Your task to perform on an android device: change the clock style Image 0: 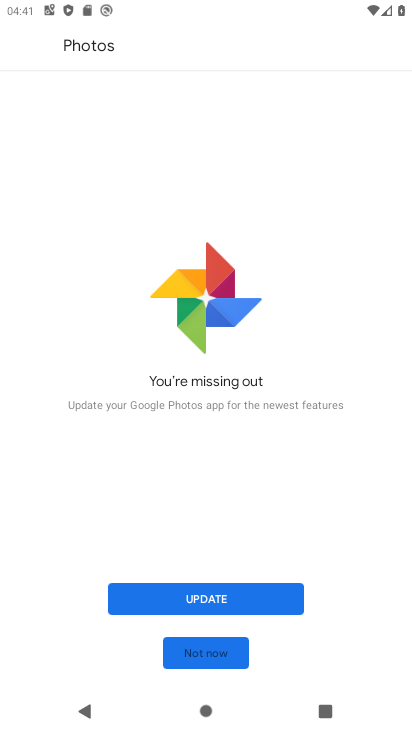
Step 0: press home button
Your task to perform on an android device: change the clock style Image 1: 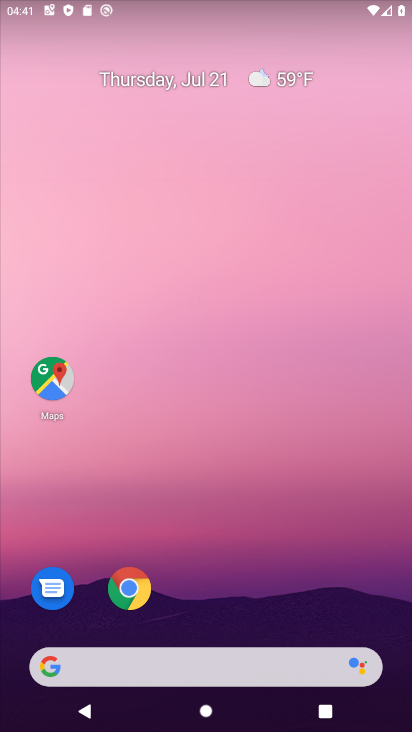
Step 1: drag from (188, 588) to (201, 15)
Your task to perform on an android device: change the clock style Image 2: 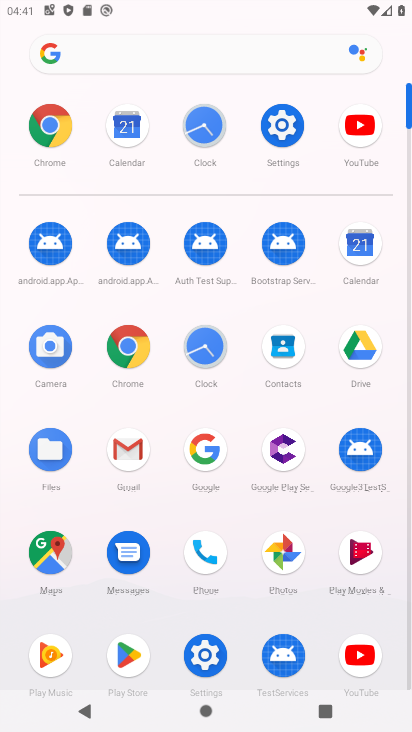
Step 2: click (200, 346)
Your task to perform on an android device: change the clock style Image 3: 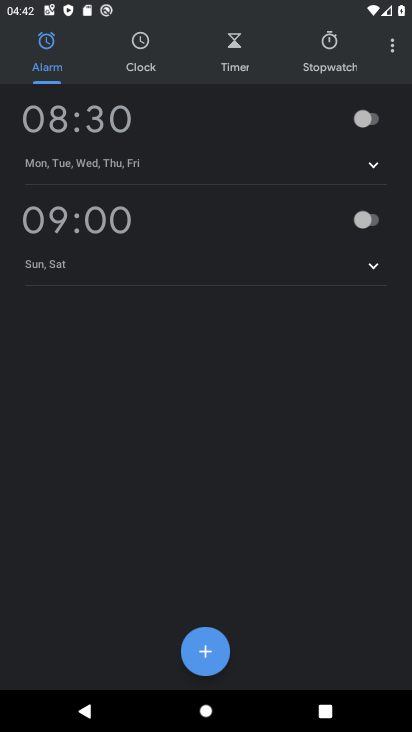
Step 3: click (392, 52)
Your task to perform on an android device: change the clock style Image 4: 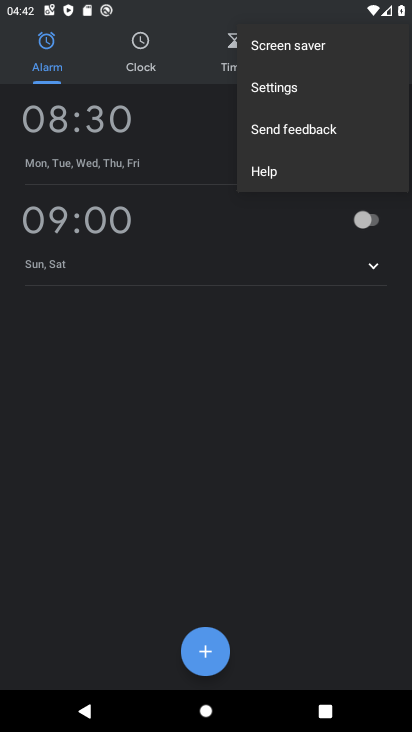
Step 4: click (263, 94)
Your task to perform on an android device: change the clock style Image 5: 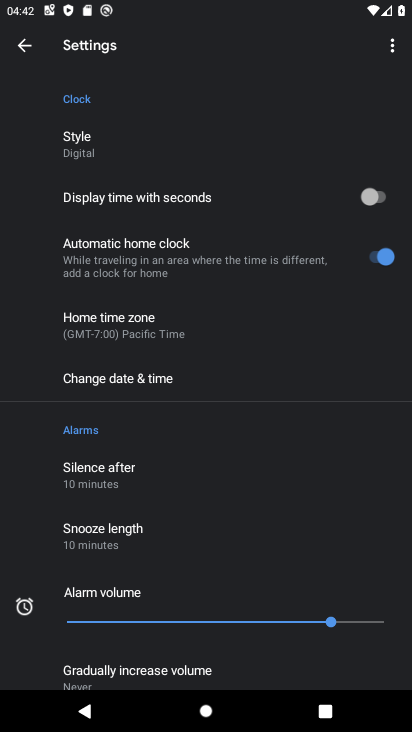
Step 5: click (91, 156)
Your task to perform on an android device: change the clock style Image 6: 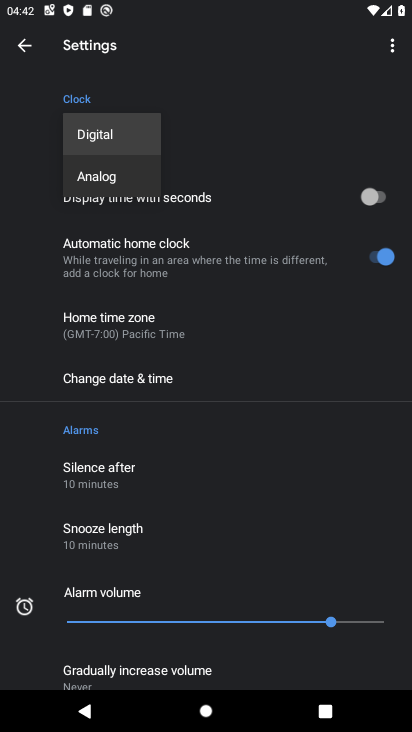
Step 6: click (102, 177)
Your task to perform on an android device: change the clock style Image 7: 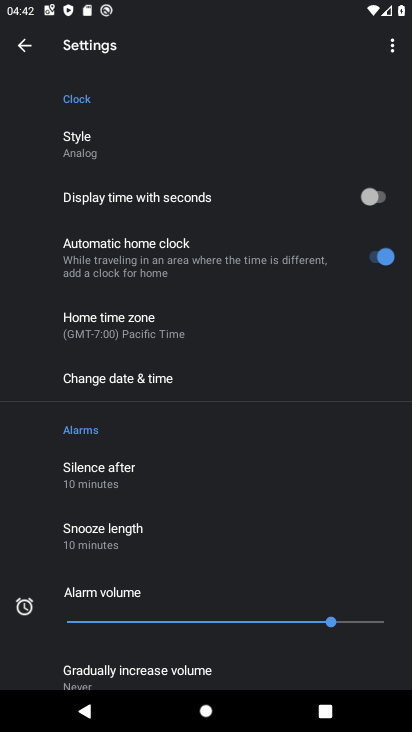
Step 7: task complete